Your task to perform on an android device: What's the weather going to be this weekend? Image 0: 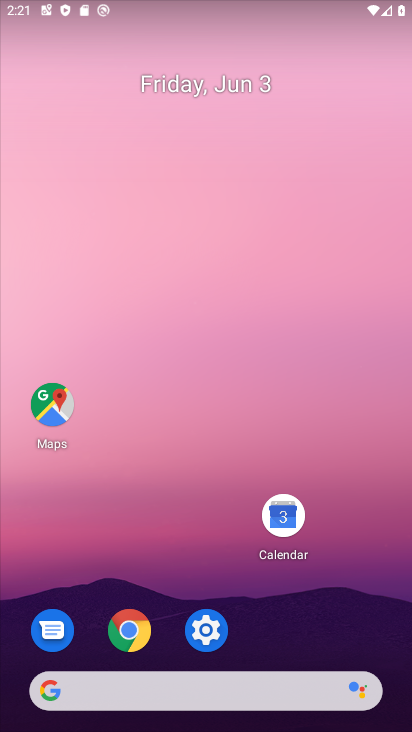
Step 0: drag from (260, 710) to (163, 156)
Your task to perform on an android device: What's the weather going to be this weekend? Image 1: 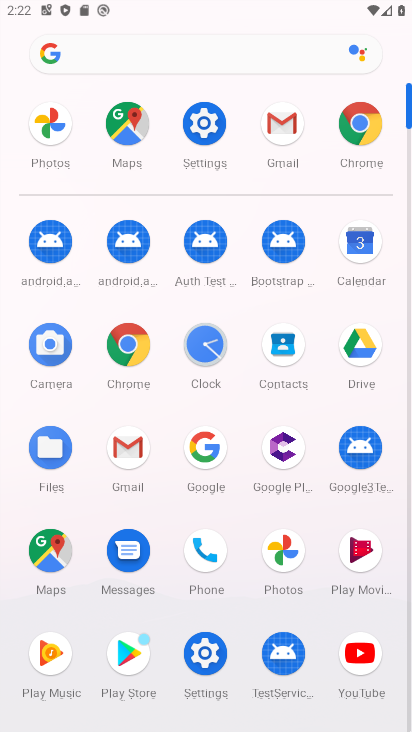
Step 1: click (201, 60)
Your task to perform on an android device: What's the weather going to be this weekend? Image 2: 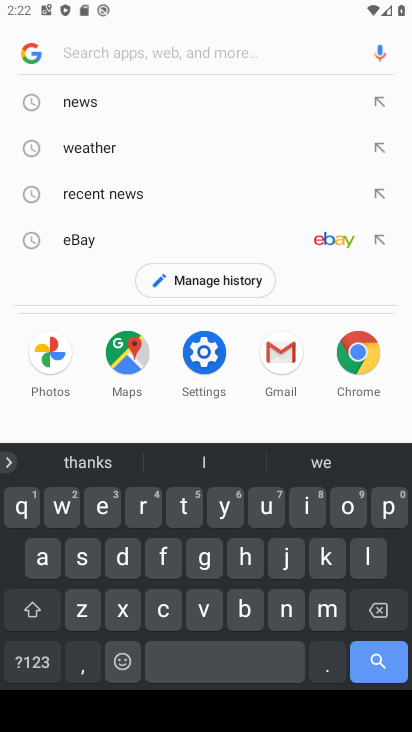
Step 2: click (92, 153)
Your task to perform on an android device: What's the weather going to be this weekend? Image 3: 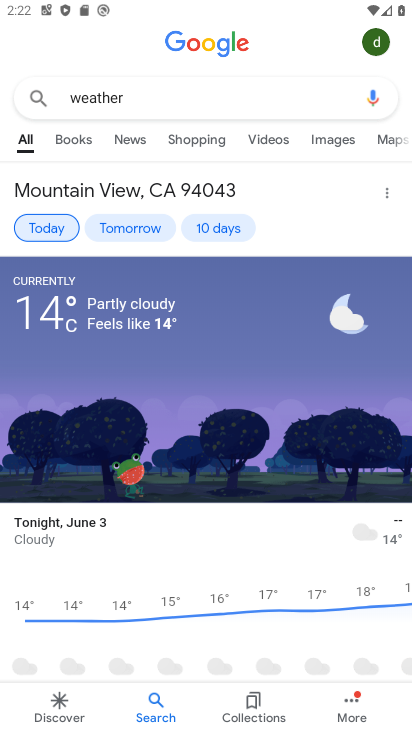
Step 3: click (199, 220)
Your task to perform on an android device: What's the weather going to be this weekend? Image 4: 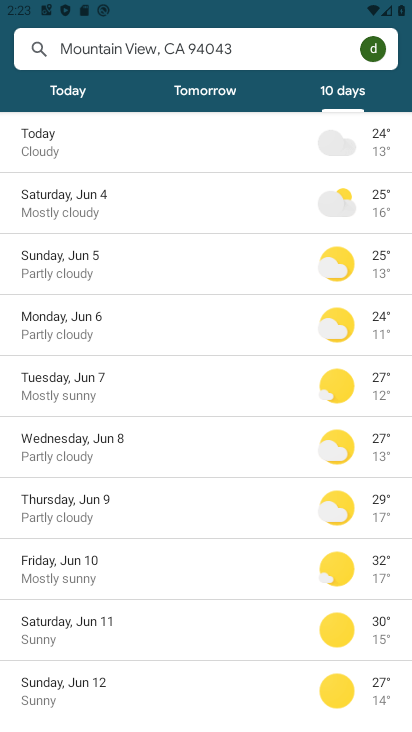
Step 4: task complete